Your task to perform on an android device: Go to accessibility settings Image 0: 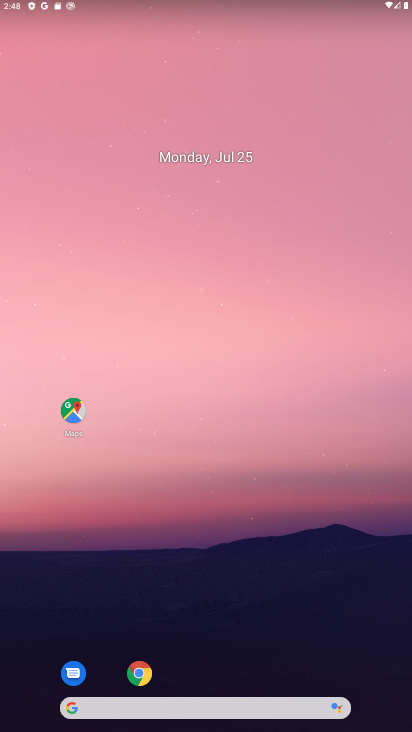
Step 0: drag from (262, 618) to (279, 243)
Your task to perform on an android device: Go to accessibility settings Image 1: 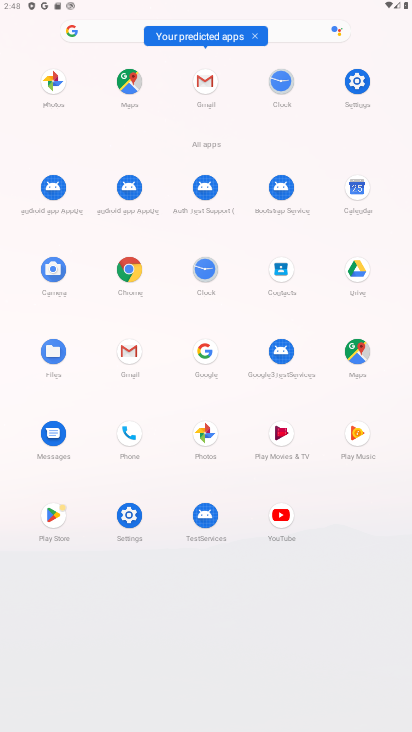
Step 1: click (124, 514)
Your task to perform on an android device: Go to accessibility settings Image 2: 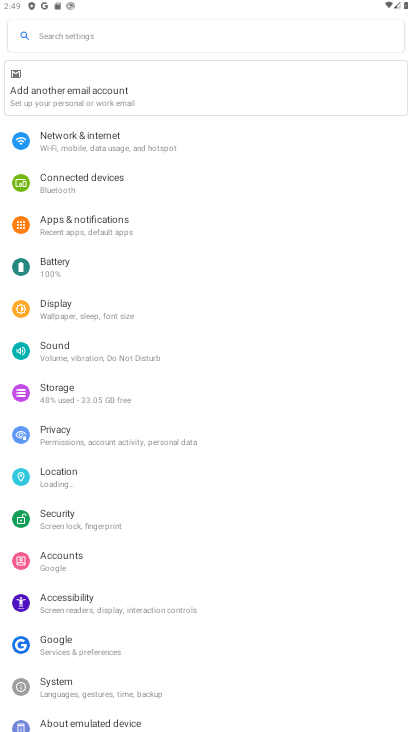
Step 2: click (138, 603)
Your task to perform on an android device: Go to accessibility settings Image 3: 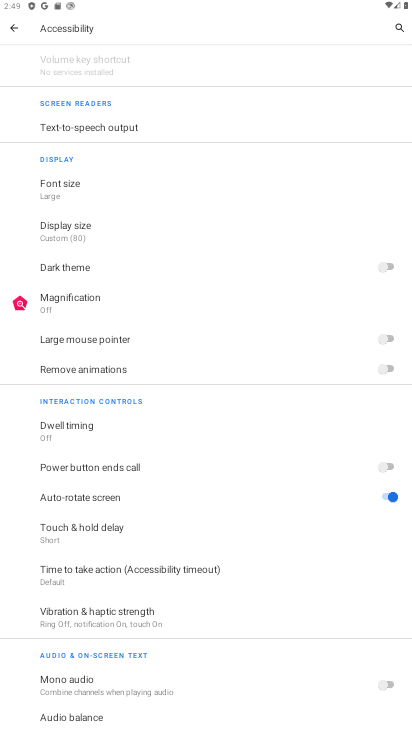
Step 3: task complete